Your task to perform on an android device: see creations saved in the google photos Image 0: 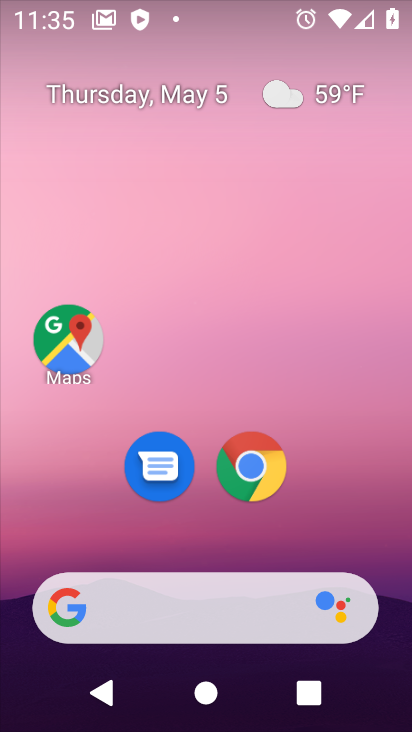
Step 0: drag from (180, 560) to (132, 150)
Your task to perform on an android device: see creations saved in the google photos Image 1: 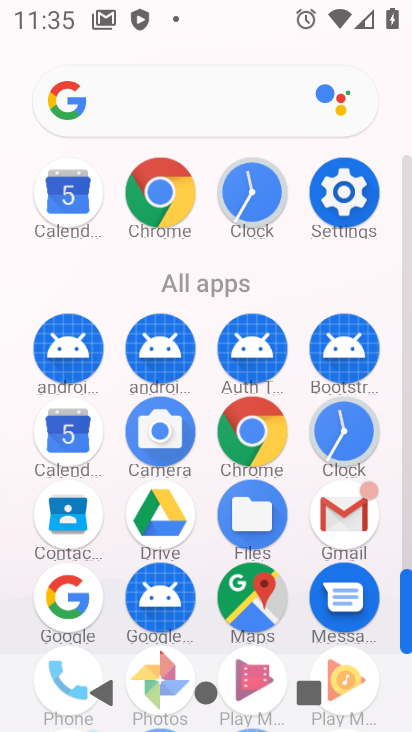
Step 1: drag from (209, 608) to (203, 365)
Your task to perform on an android device: see creations saved in the google photos Image 2: 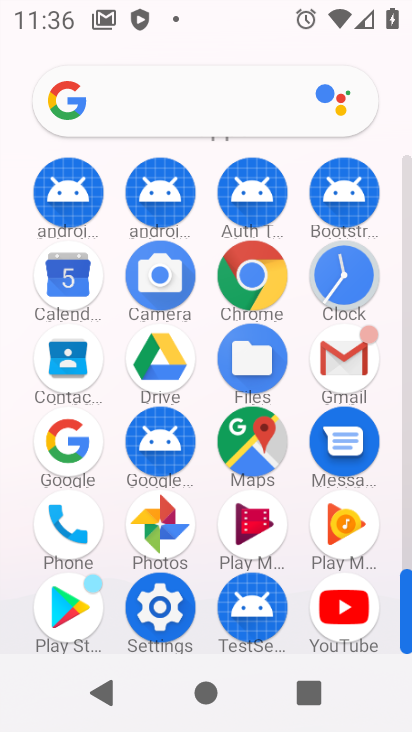
Step 2: click (160, 525)
Your task to perform on an android device: see creations saved in the google photos Image 3: 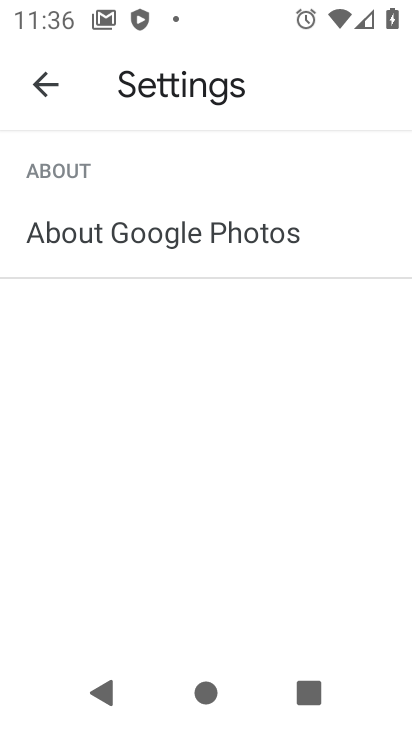
Step 3: press home button
Your task to perform on an android device: see creations saved in the google photos Image 4: 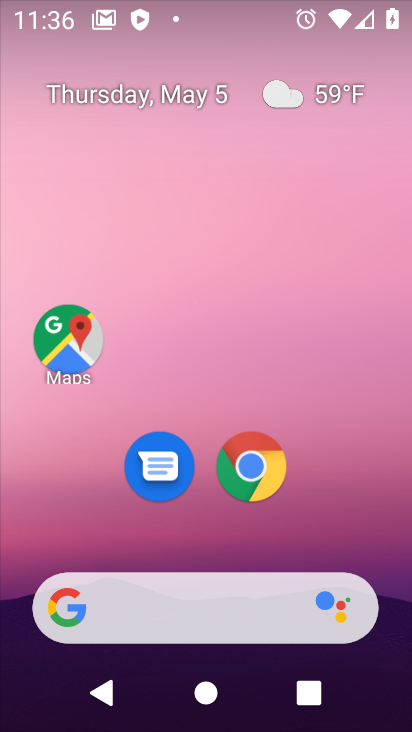
Step 4: drag from (182, 558) to (171, 223)
Your task to perform on an android device: see creations saved in the google photos Image 5: 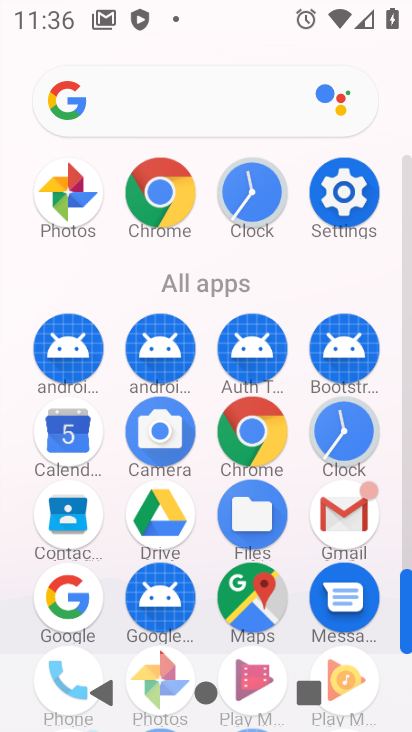
Step 5: drag from (201, 640) to (191, 389)
Your task to perform on an android device: see creations saved in the google photos Image 6: 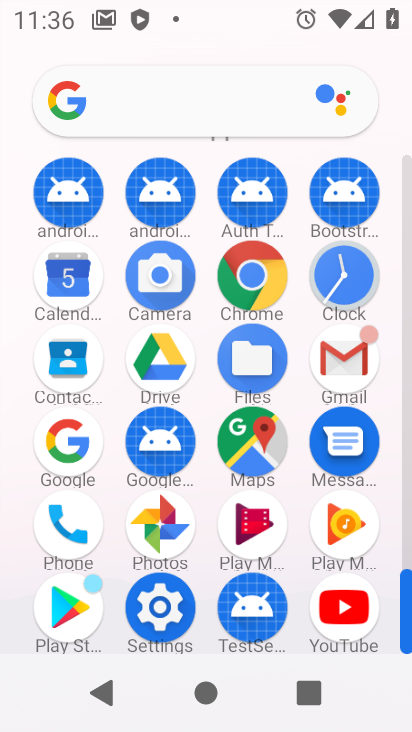
Step 6: click (158, 521)
Your task to perform on an android device: see creations saved in the google photos Image 7: 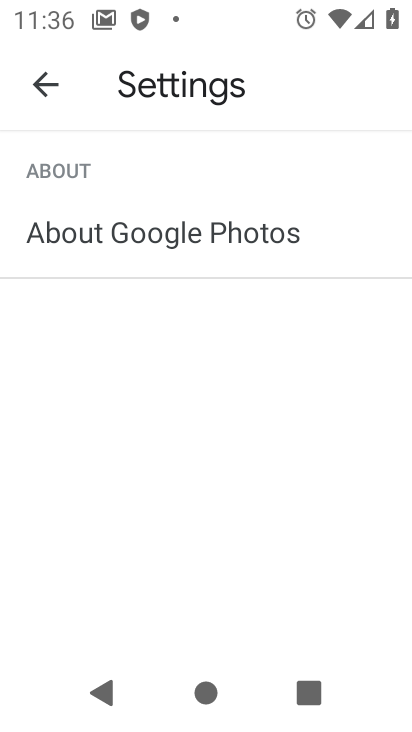
Step 7: click (36, 93)
Your task to perform on an android device: see creations saved in the google photos Image 8: 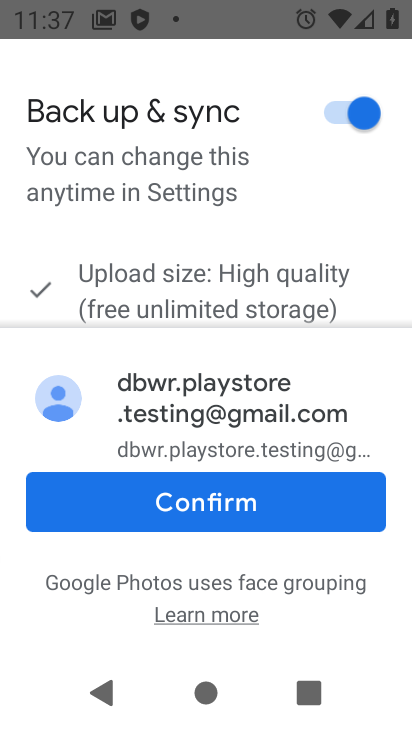
Step 8: click (215, 510)
Your task to perform on an android device: see creations saved in the google photos Image 9: 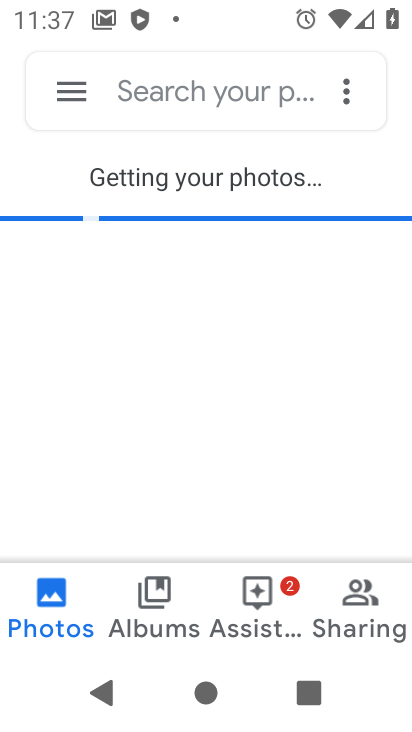
Step 9: click (154, 95)
Your task to perform on an android device: see creations saved in the google photos Image 10: 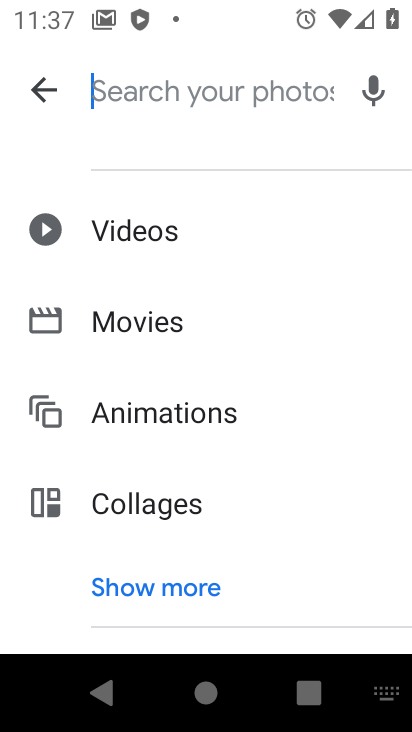
Step 10: type "see creation"
Your task to perform on an android device: see creations saved in the google photos Image 11: 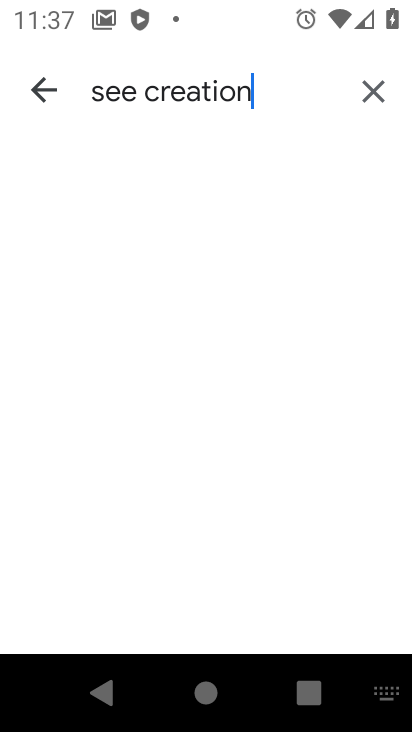
Step 11: click (298, 101)
Your task to perform on an android device: see creations saved in the google photos Image 12: 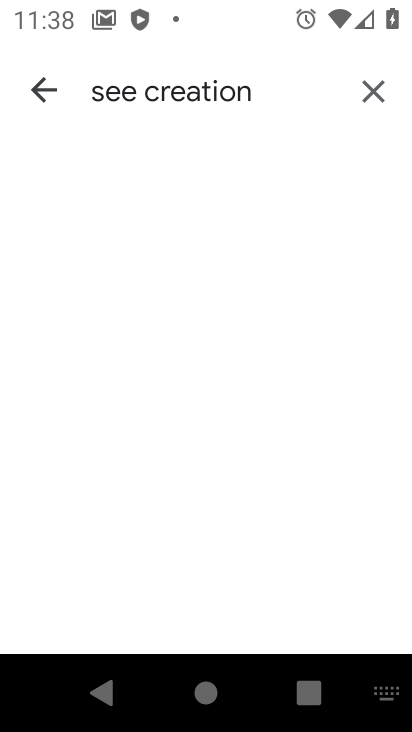
Step 12: task complete